Your task to perform on an android device: Do I have any events this weekend? Image 0: 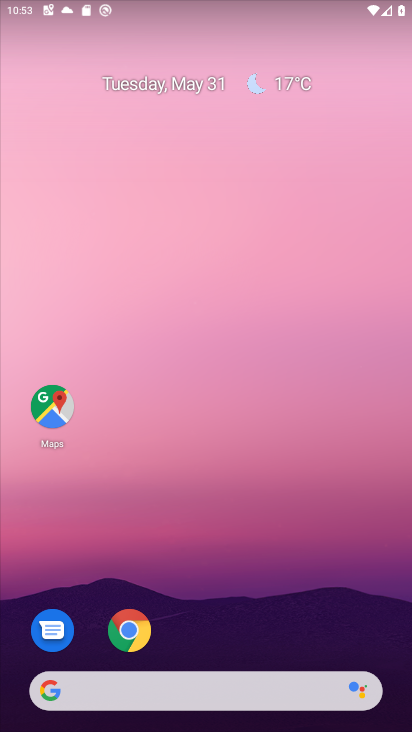
Step 0: drag from (282, 558) to (264, 33)
Your task to perform on an android device: Do I have any events this weekend? Image 1: 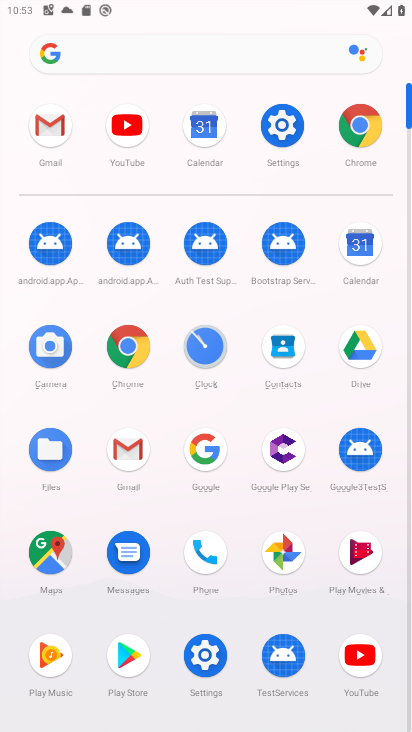
Step 1: click (367, 249)
Your task to perform on an android device: Do I have any events this weekend? Image 2: 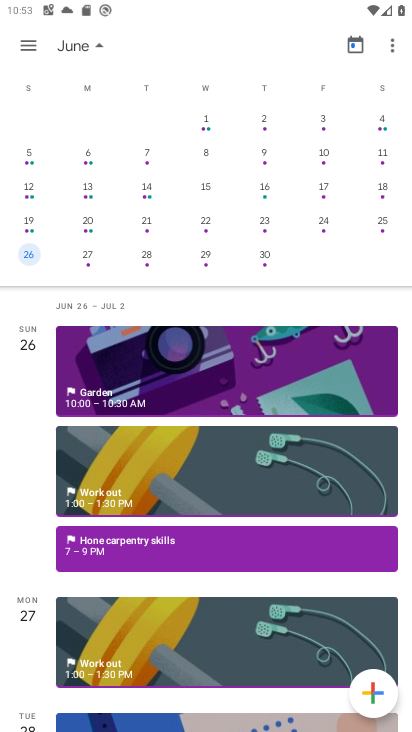
Step 2: click (29, 40)
Your task to perform on an android device: Do I have any events this weekend? Image 3: 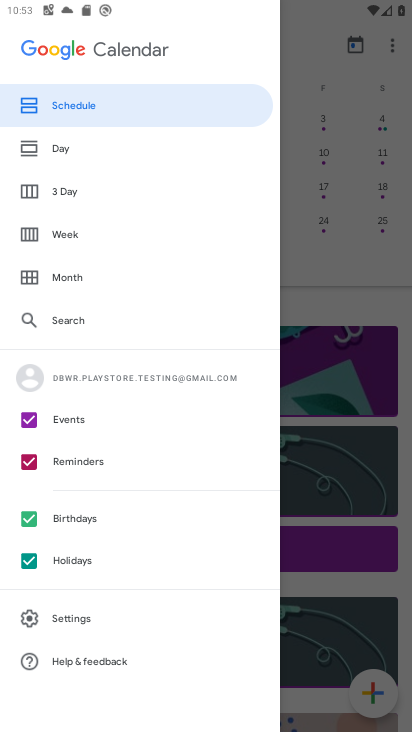
Step 3: drag from (53, 228) to (66, 184)
Your task to perform on an android device: Do I have any events this weekend? Image 4: 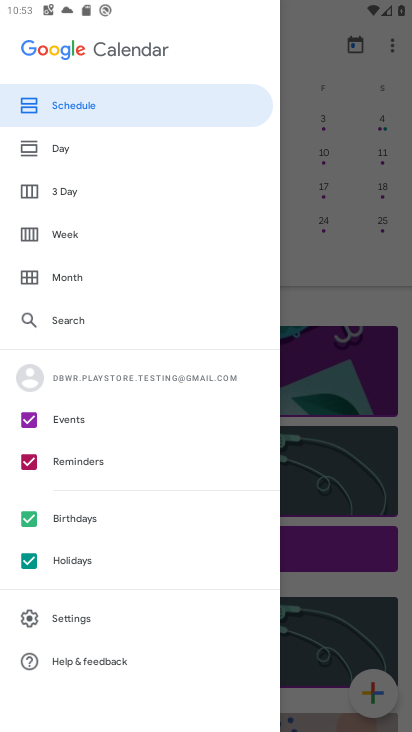
Step 4: click (66, 184)
Your task to perform on an android device: Do I have any events this weekend? Image 5: 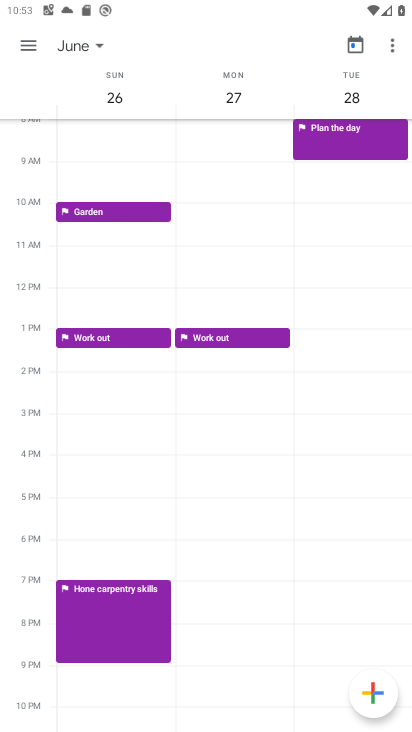
Step 5: task complete